Your task to perform on an android device: Open ESPN.com Image 0: 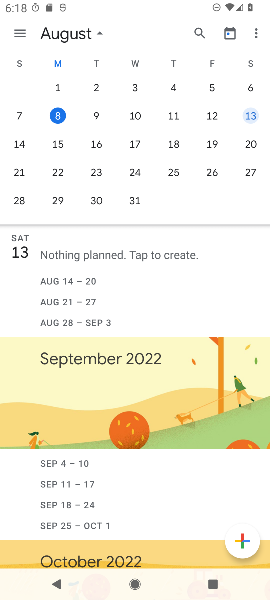
Step 0: press home button
Your task to perform on an android device: Open ESPN.com Image 1: 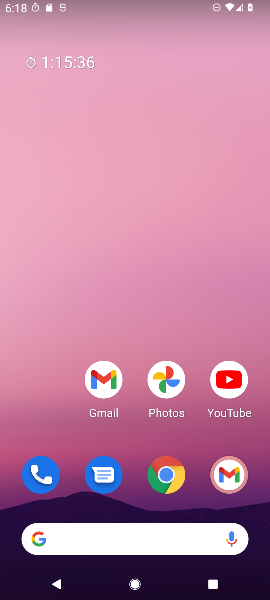
Step 1: drag from (64, 408) to (71, 247)
Your task to perform on an android device: Open ESPN.com Image 2: 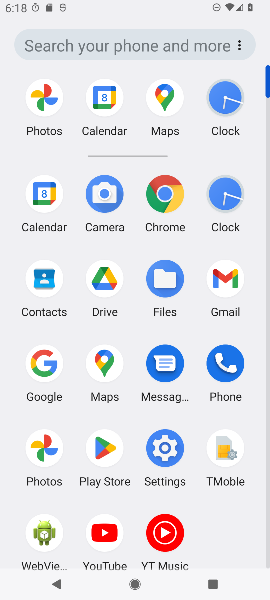
Step 2: click (166, 196)
Your task to perform on an android device: Open ESPN.com Image 3: 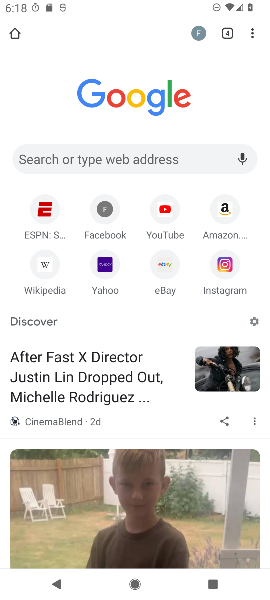
Step 3: click (173, 157)
Your task to perform on an android device: Open ESPN.com Image 4: 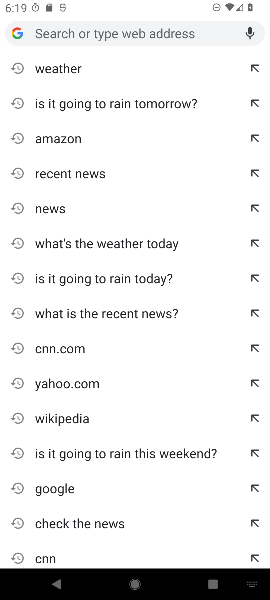
Step 4: type "espn.com"
Your task to perform on an android device: Open ESPN.com Image 5: 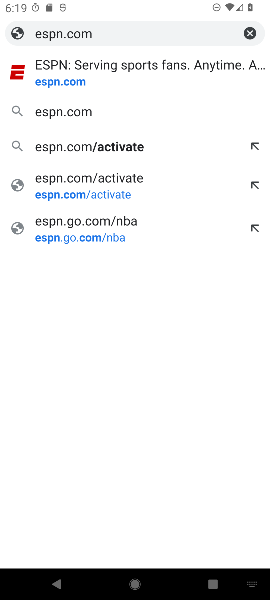
Step 5: click (147, 64)
Your task to perform on an android device: Open ESPN.com Image 6: 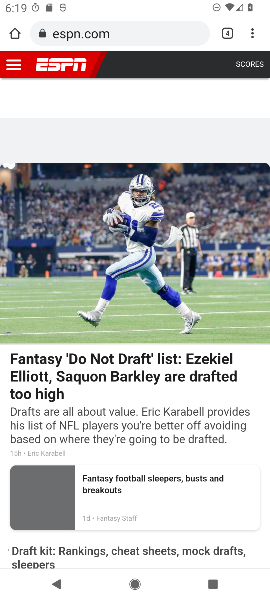
Step 6: task complete